Your task to perform on an android device: What is the speed of a plane? Image 0: 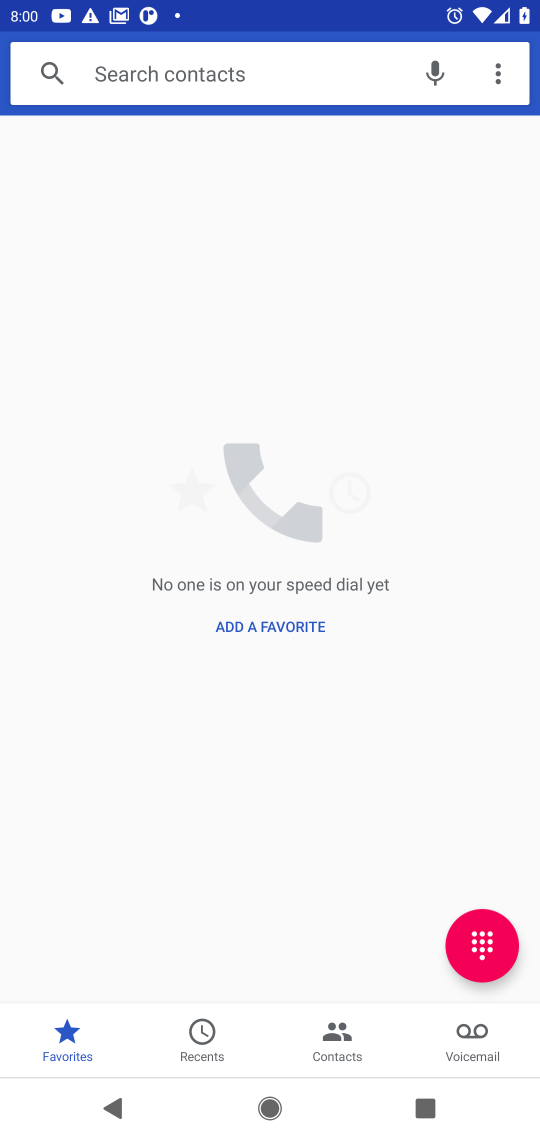
Step 0: press home button
Your task to perform on an android device: What is the speed of a plane? Image 1: 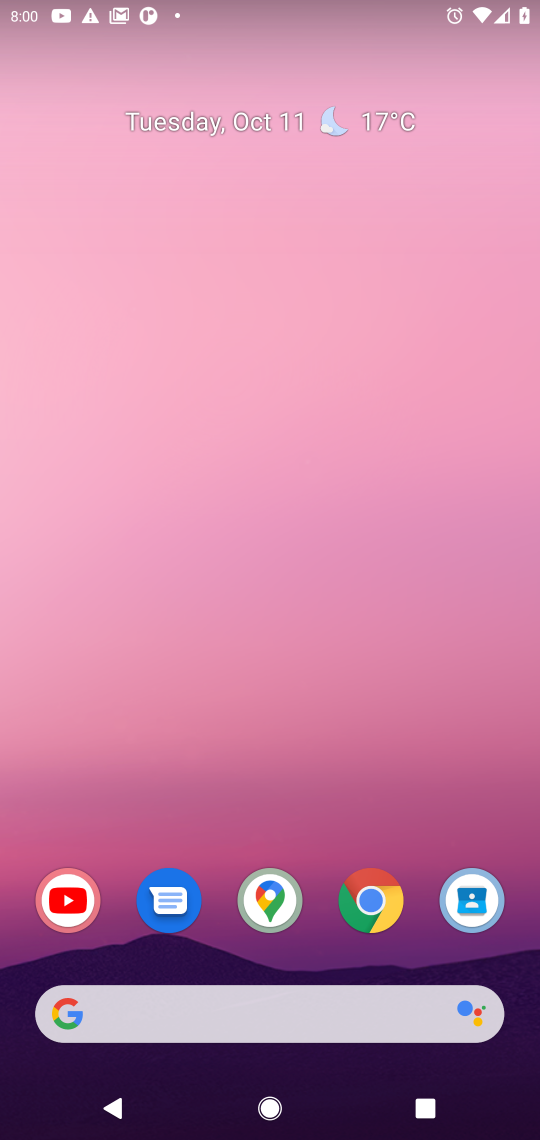
Step 1: click (372, 904)
Your task to perform on an android device: What is the speed of a plane? Image 2: 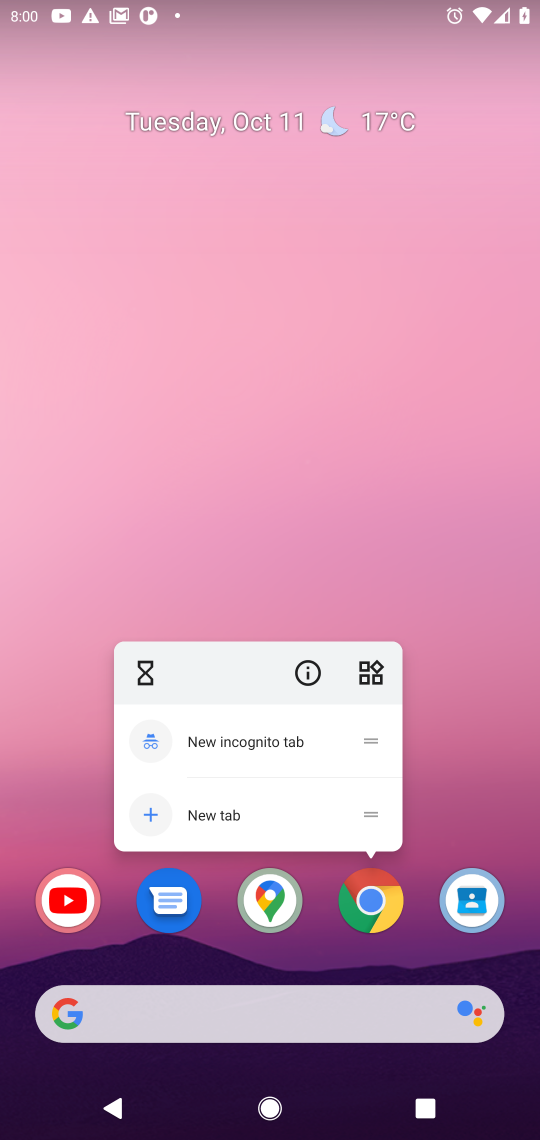
Step 2: click (372, 915)
Your task to perform on an android device: What is the speed of a plane? Image 3: 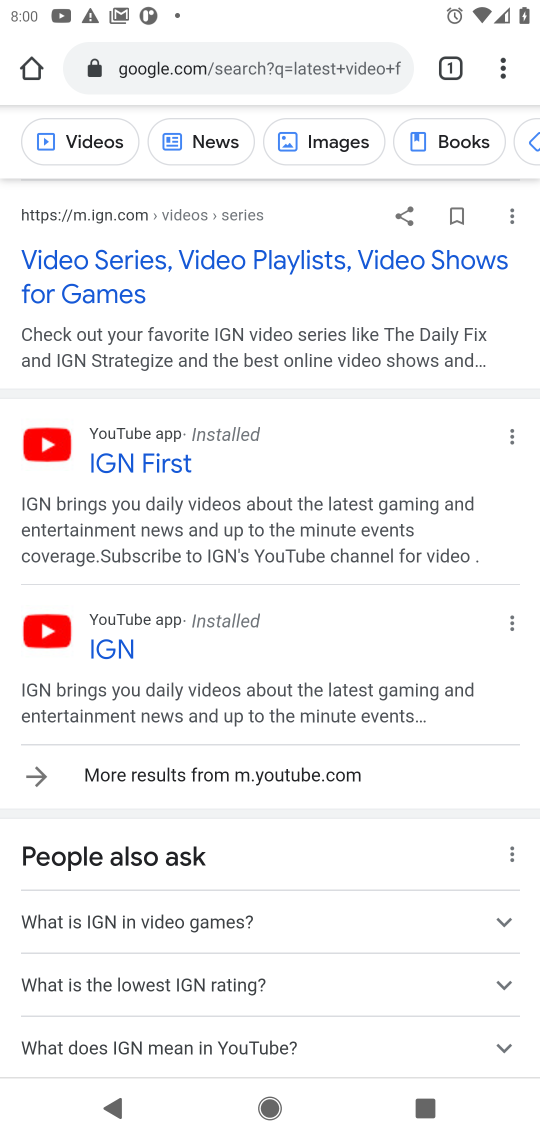
Step 3: click (332, 68)
Your task to perform on an android device: What is the speed of a plane? Image 4: 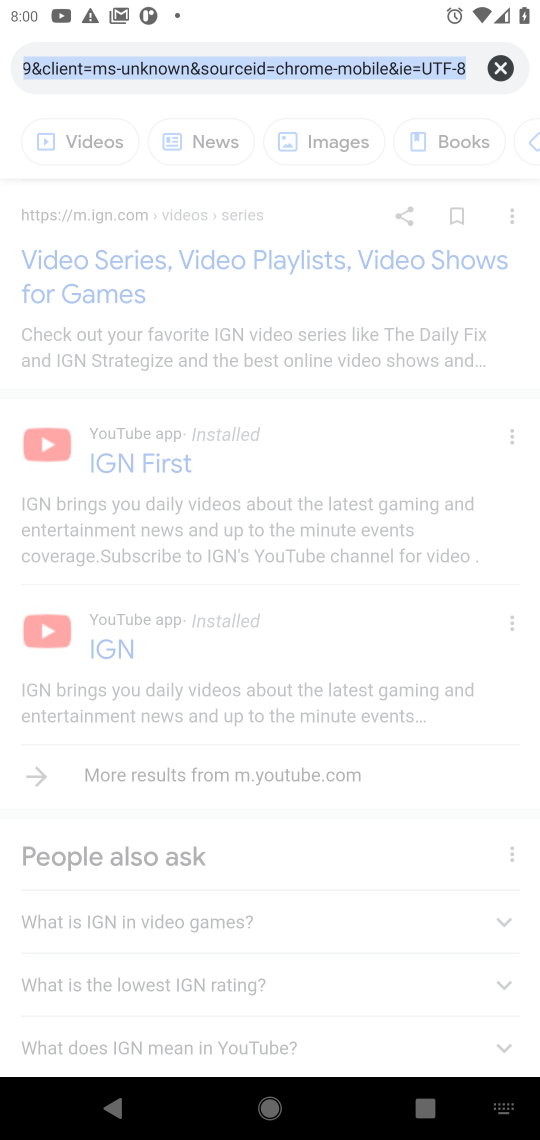
Step 4: click (512, 62)
Your task to perform on an android device: What is the speed of a plane? Image 5: 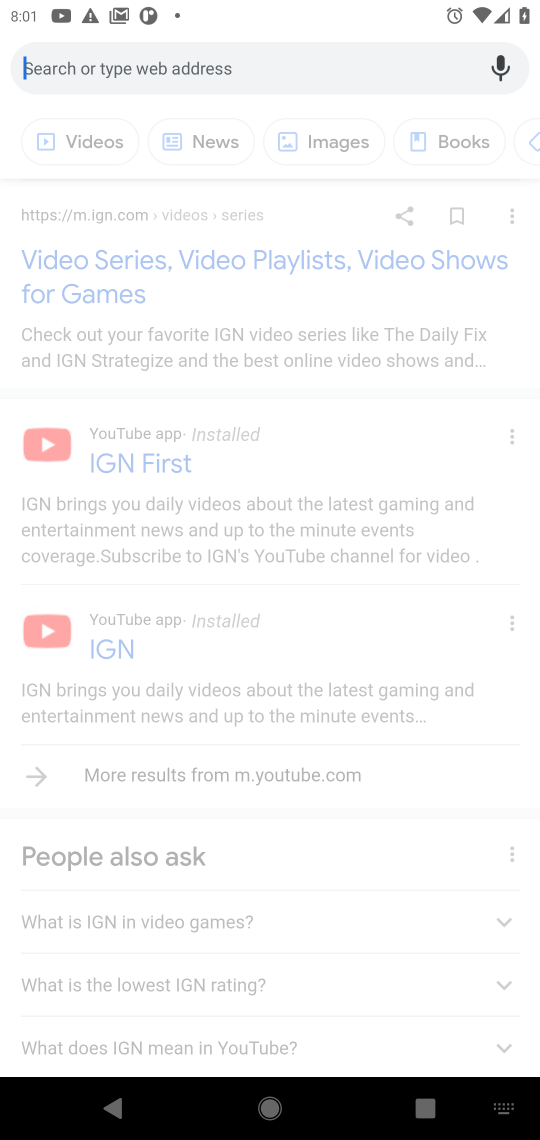
Step 5: type "What is the speed of a plane"
Your task to perform on an android device: What is the speed of a plane? Image 6: 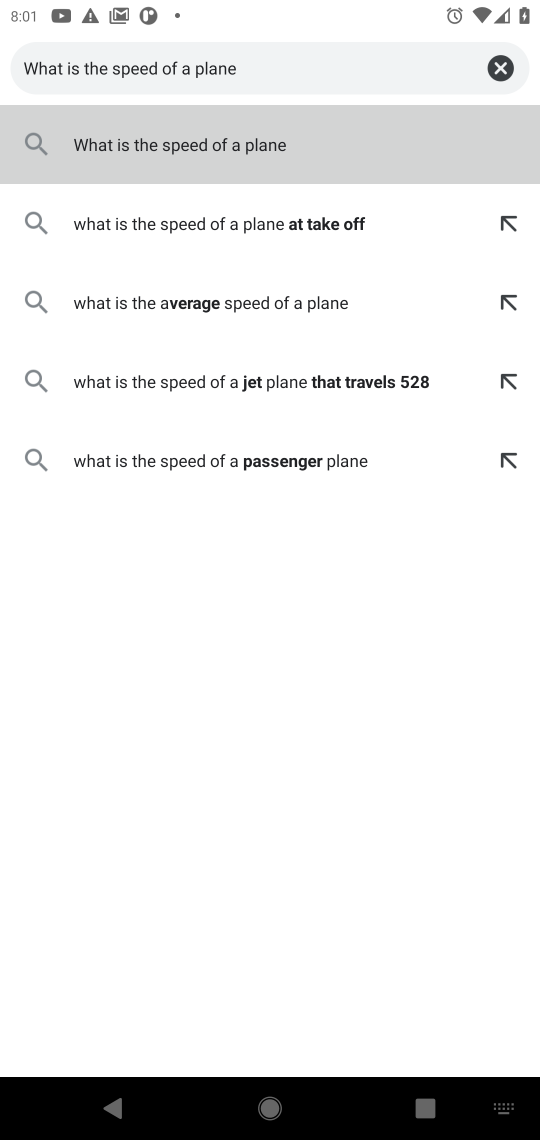
Step 6: press enter
Your task to perform on an android device: What is the speed of a plane? Image 7: 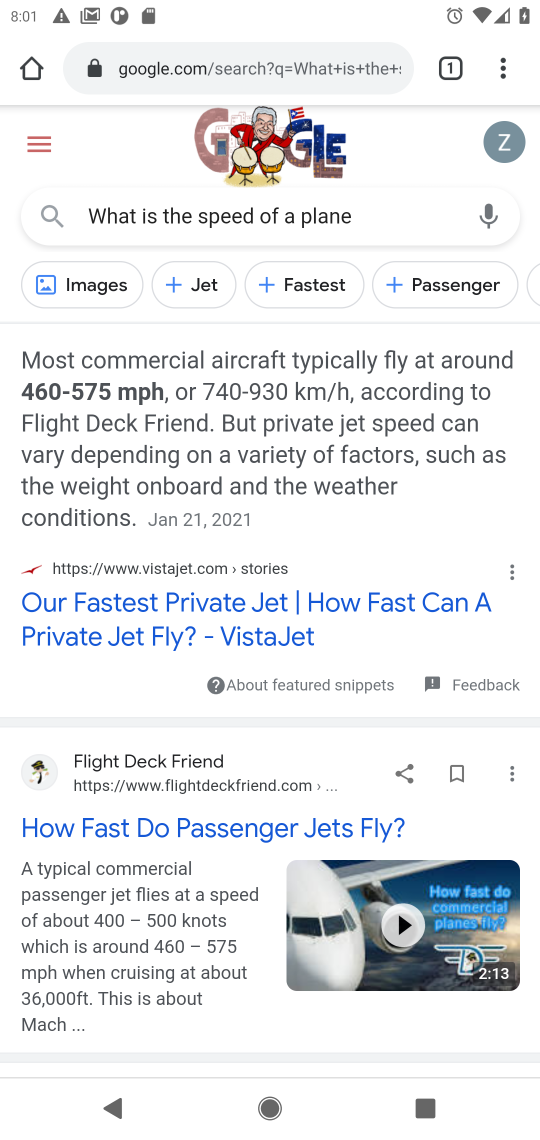
Step 7: task complete